Your task to perform on an android device: check storage Image 0: 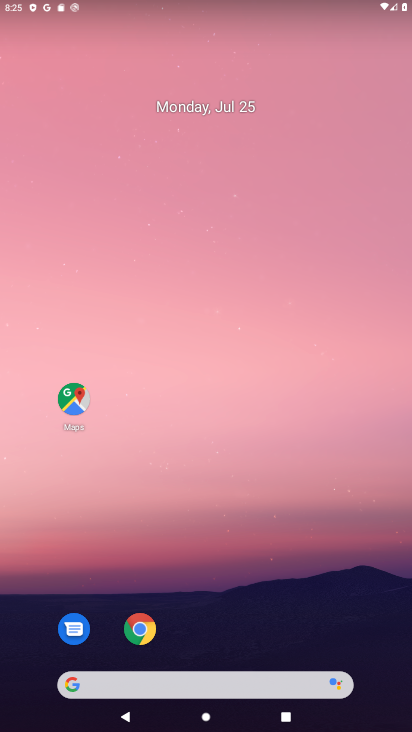
Step 0: drag from (238, 612) to (180, 42)
Your task to perform on an android device: check storage Image 1: 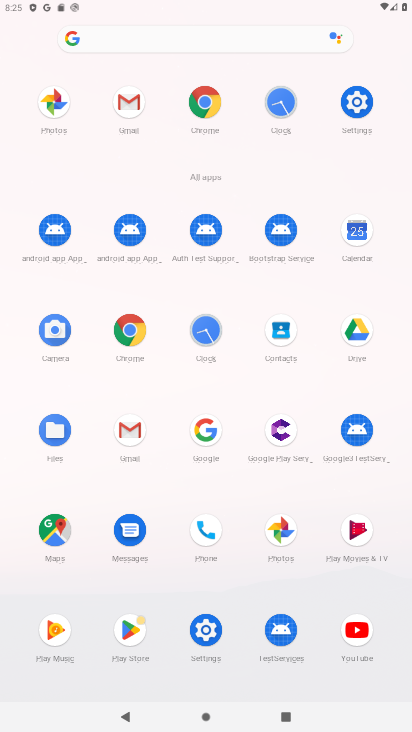
Step 1: click (361, 105)
Your task to perform on an android device: check storage Image 2: 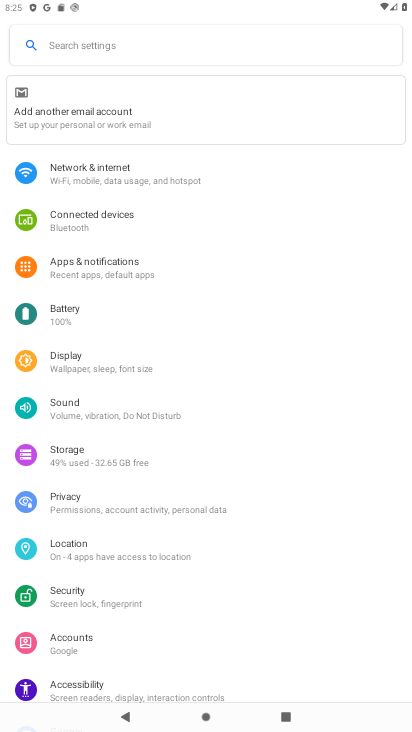
Step 2: click (128, 469)
Your task to perform on an android device: check storage Image 3: 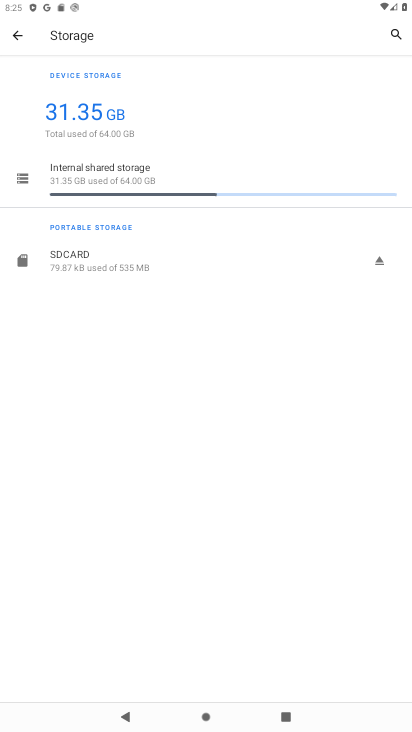
Step 3: task complete